Your task to perform on an android device: What is the news today? Image 0: 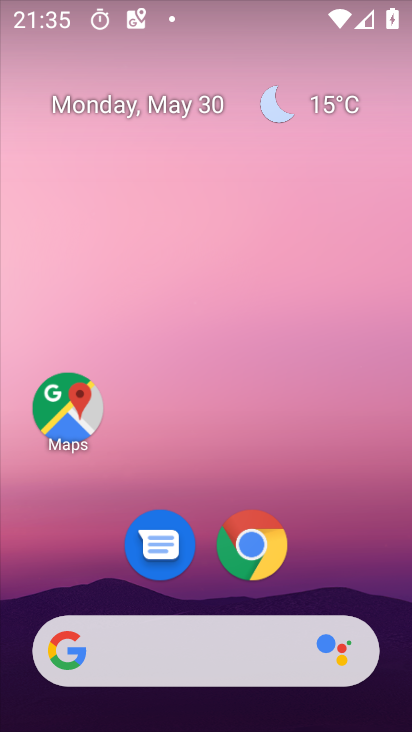
Step 0: click (126, 649)
Your task to perform on an android device: What is the news today? Image 1: 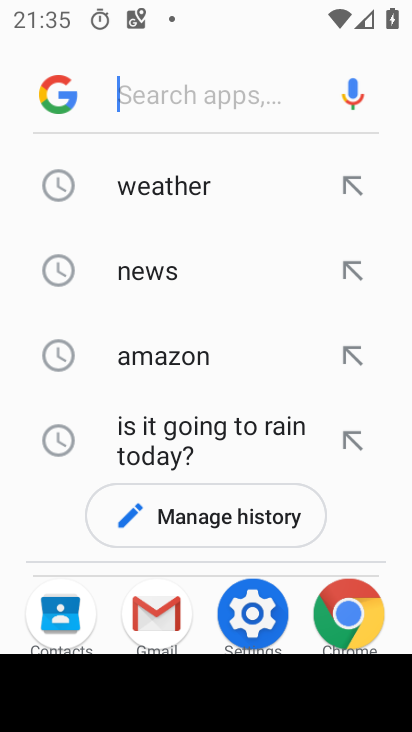
Step 1: type "news today"
Your task to perform on an android device: What is the news today? Image 2: 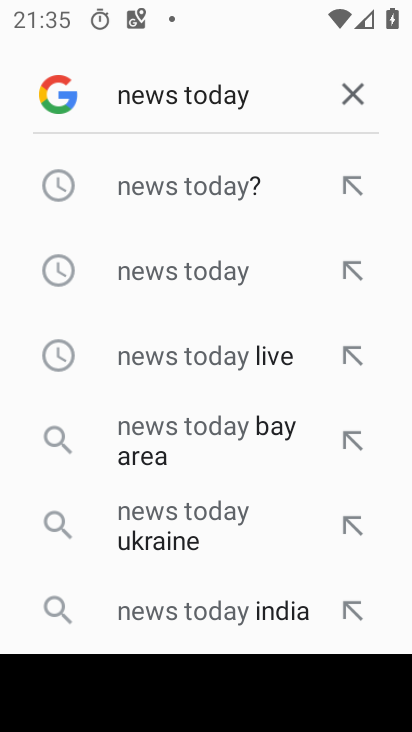
Step 2: click (203, 182)
Your task to perform on an android device: What is the news today? Image 3: 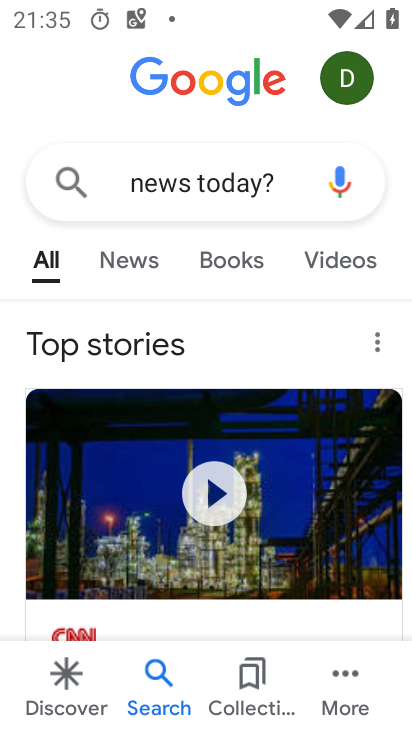
Step 3: click (113, 258)
Your task to perform on an android device: What is the news today? Image 4: 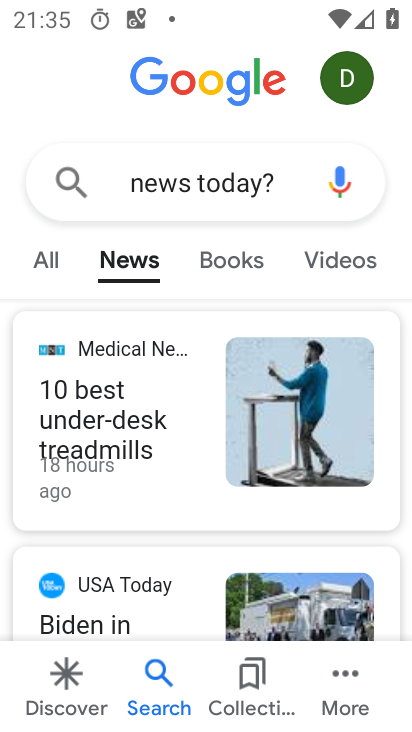
Step 4: task complete